Your task to perform on an android device: Go to wifi settings Image 0: 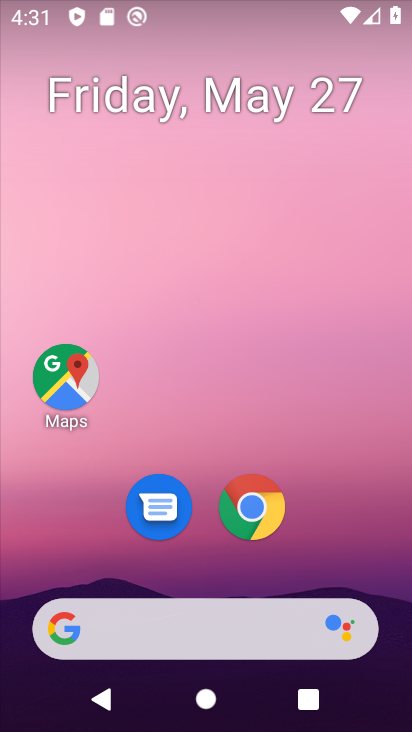
Step 0: drag from (314, 544) to (240, 150)
Your task to perform on an android device: Go to wifi settings Image 1: 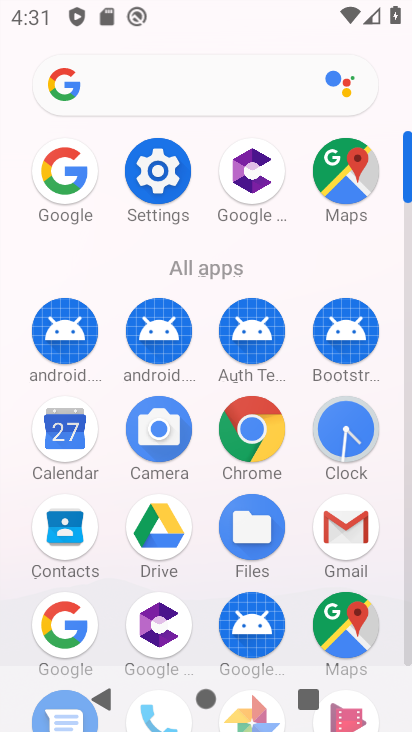
Step 1: click (156, 172)
Your task to perform on an android device: Go to wifi settings Image 2: 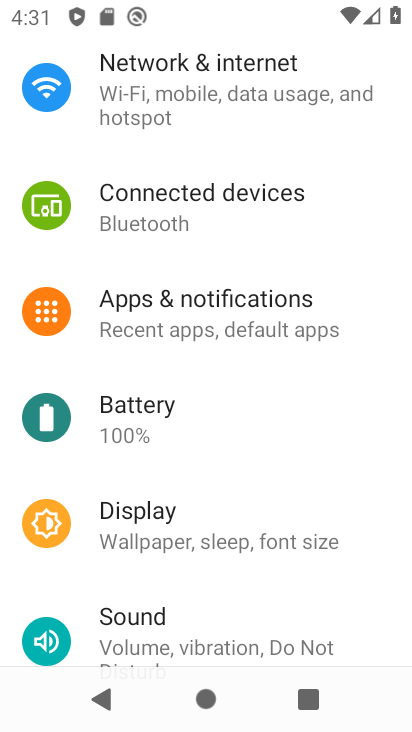
Step 2: drag from (179, 151) to (211, 371)
Your task to perform on an android device: Go to wifi settings Image 3: 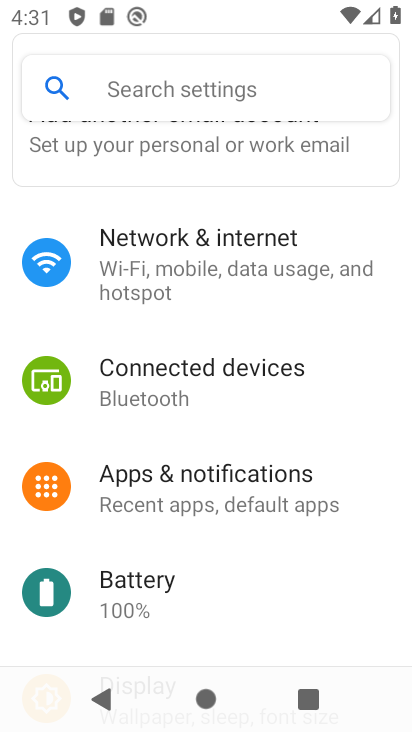
Step 3: click (225, 244)
Your task to perform on an android device: Go to wifi settings Image 4: 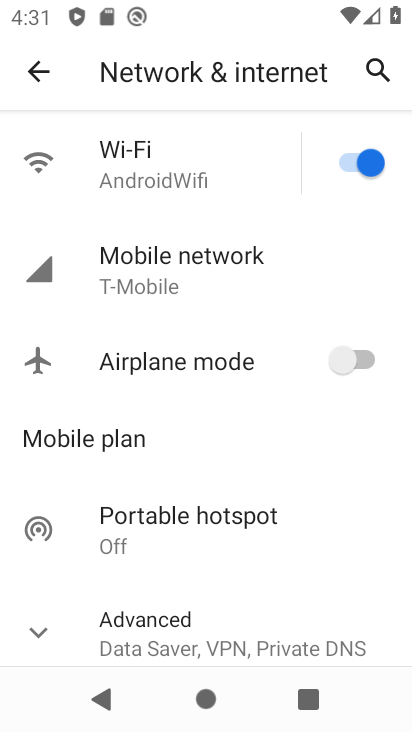
Step 4: click (141, 169)
Your task to perform on an android device: Go to wifi settings Image 5: 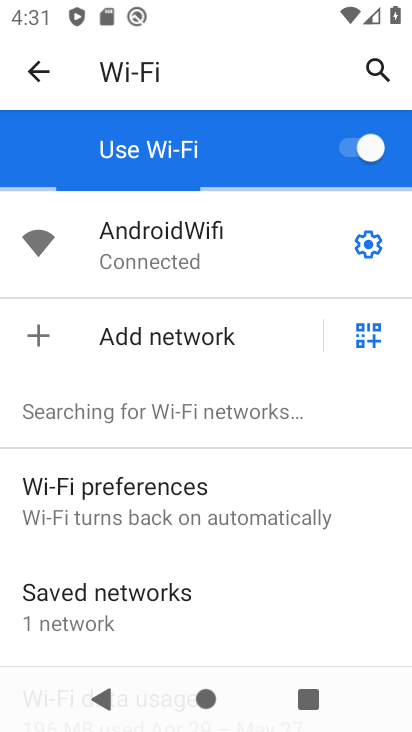
Step 5: click (372, 243)
Your task to perform on an android device: Go to wifi settings Image 6: 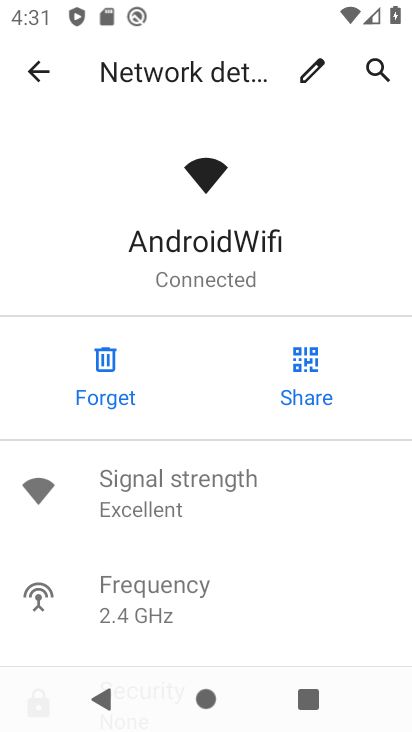
Step 6: task complete